Your task to perform on an android device: open app "Pluto TV - Live TV and Movies" (install if not already installed) Image 0: 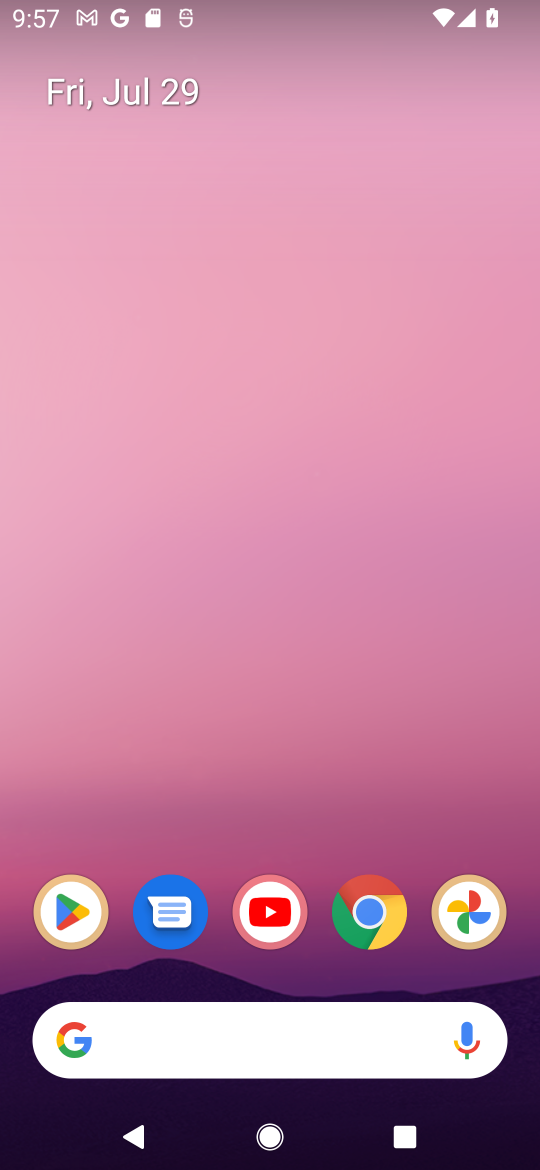
Step 0: click (278, 309)
Your task to perform on an android device: open app "Pluto TV - Live TV and Movies" (install if not already installed) Image 1: 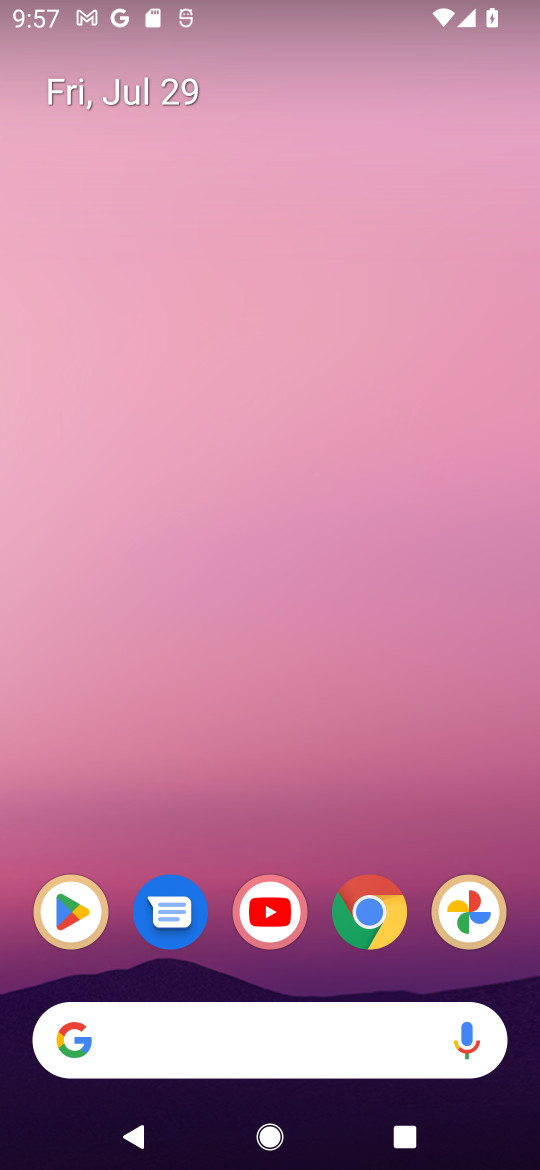
Step 1: drag from (304, 1007) to (373, 64)
Your task to perform on an android device: open app "Pluto TV - Live TV and Movies" (install if not already installed) Image 2: 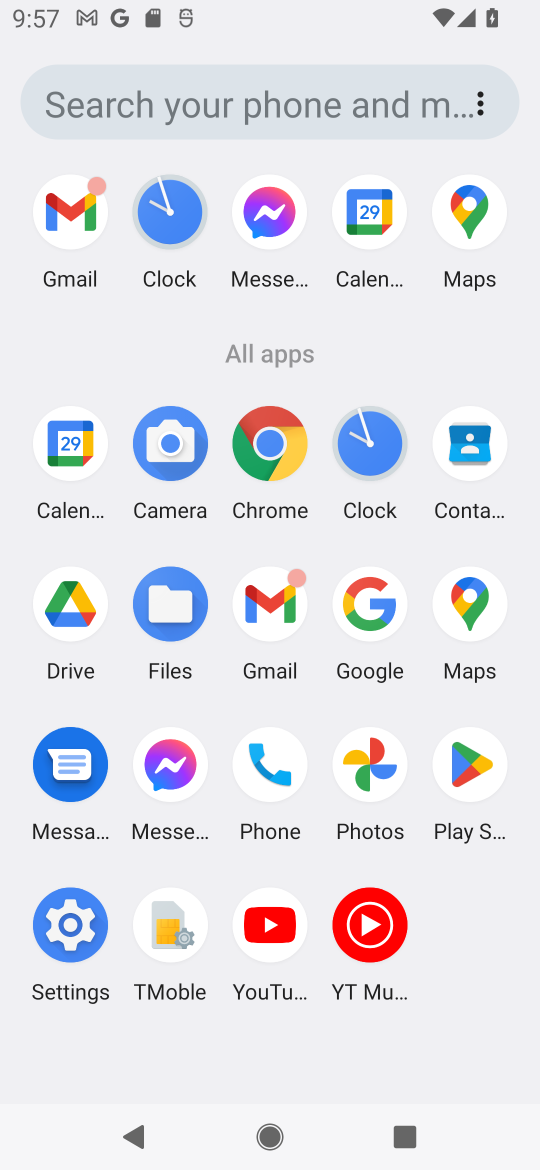
Step 2: click (478, 773)
Your task to perform on an android device: open app "Pluto TV - Live TV and Movies" (install if not already installed) Image 3: 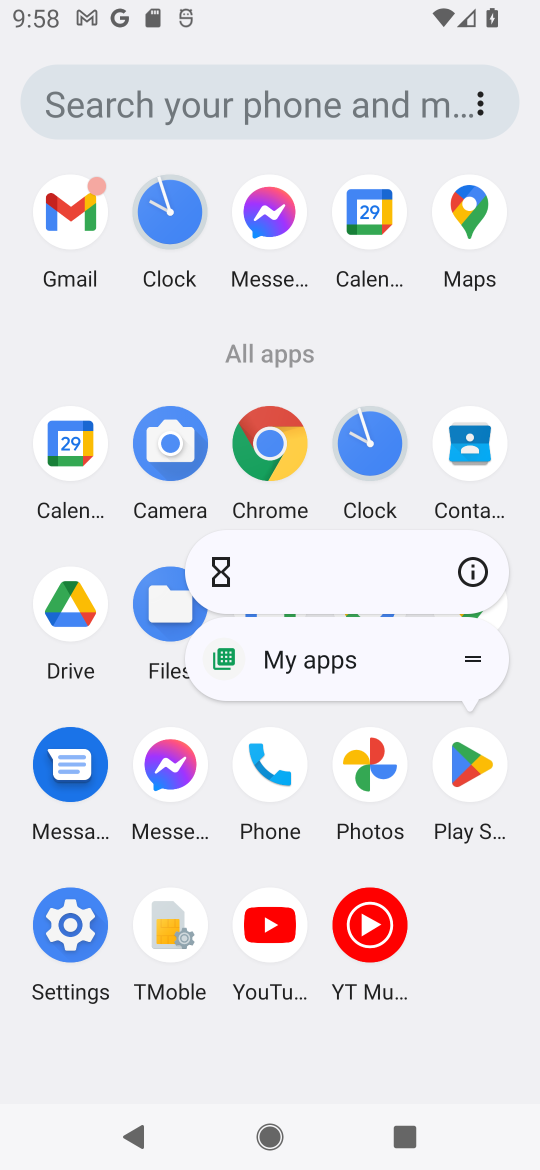
Step 3: click (469, 770)
Your task to perform on an android device: open app "Pluto TV - Live TV and Movies" (install if not already installed) Image 4: 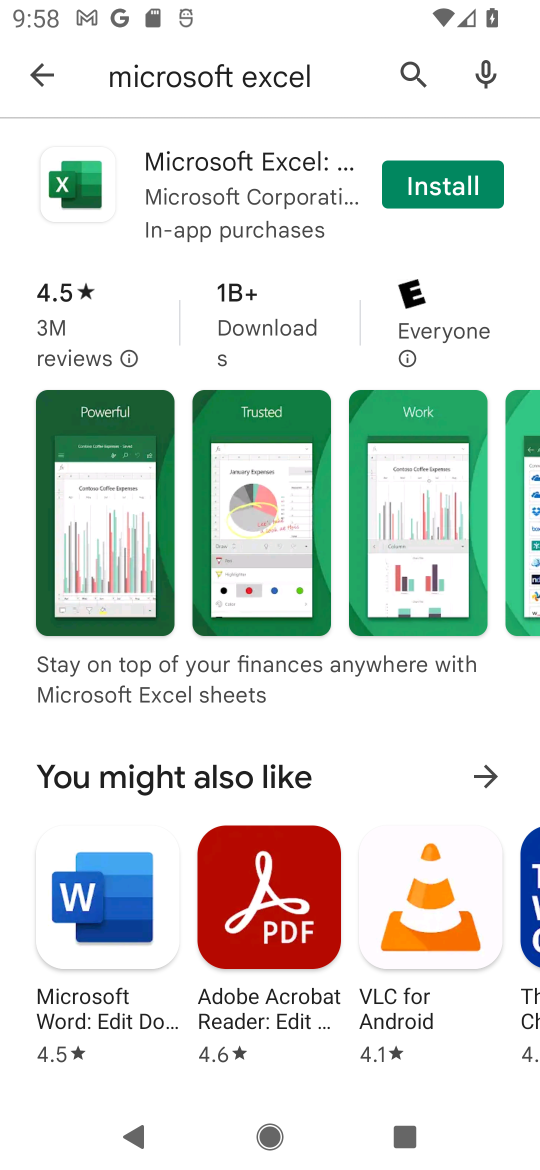
Step 4: click (28, 86)
Your task to perform on an android device: open app "Pluto TV - Live TV and Movies" (install if not already installed) Image 5: 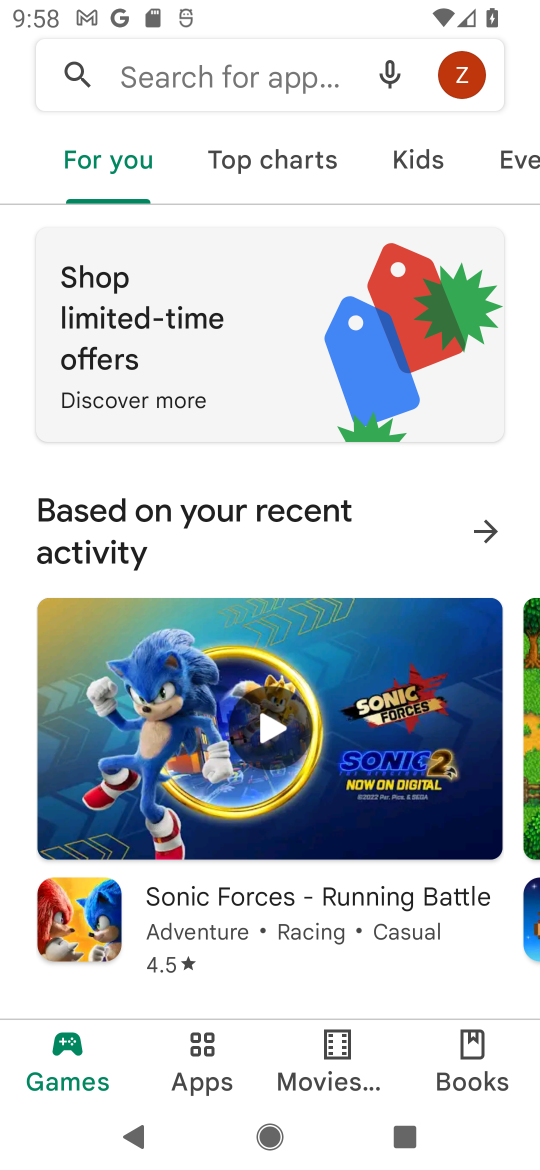
Step 5: click (180, 80)
Your task to perform on an android device: open app "Pluto TV - Live TV and Movies" (install if not already installed) Image 6: 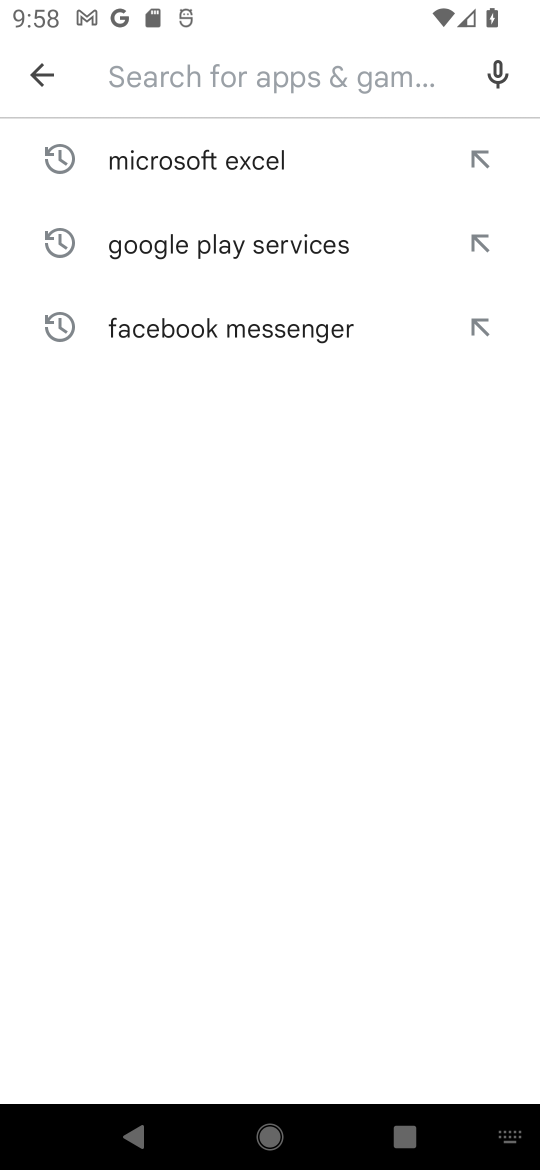
Step 6: type "Pluto TV - Live TV and Movies"
Your task to perform on an android device: open app "Pluto TV - Live TV and Movies" (install if not already installed) Image 7: 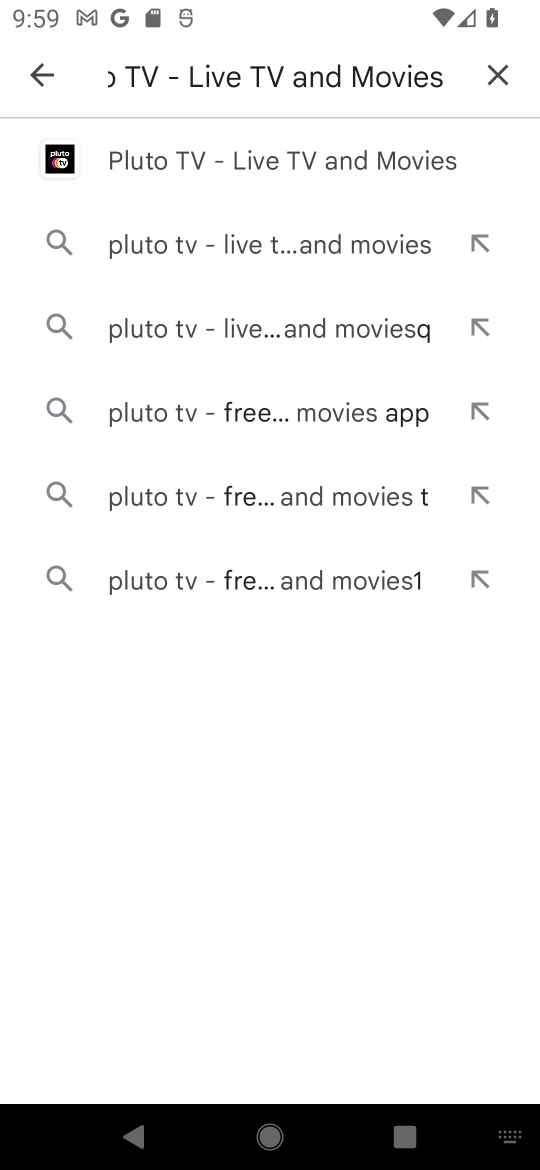
Step 7: click (281, 164)
Your task to perform on an android device: open app "Pluto TV - Live TV and Movies" (install if not already installed) Image 8: 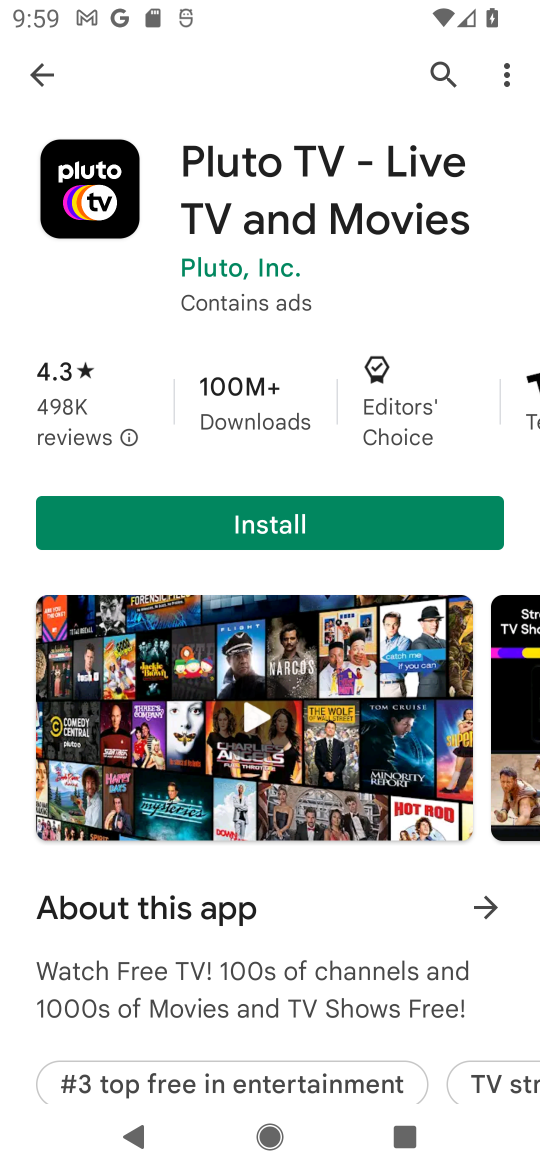
Step 8: click (229, 525)
Your task to perform on an android device: open app "Pluto TV - Live TV and Movies" (install if not already installed) Image 9: 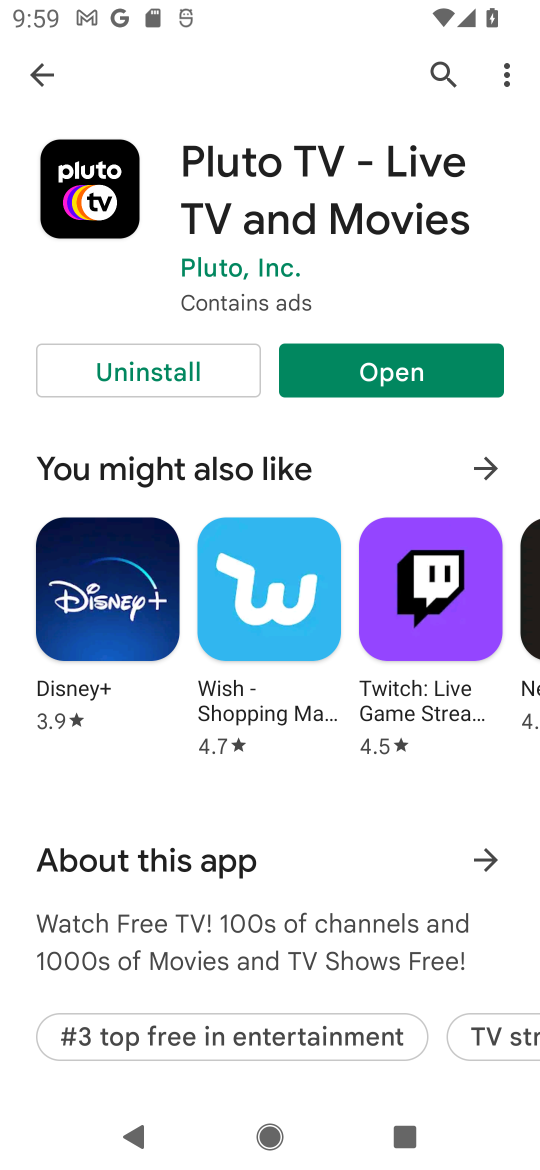
Step 9: click (371, 378)
Your task to perform on an android device: open app "Pluto TV - Live TV and Movies" (install if not already installed) Image 10: 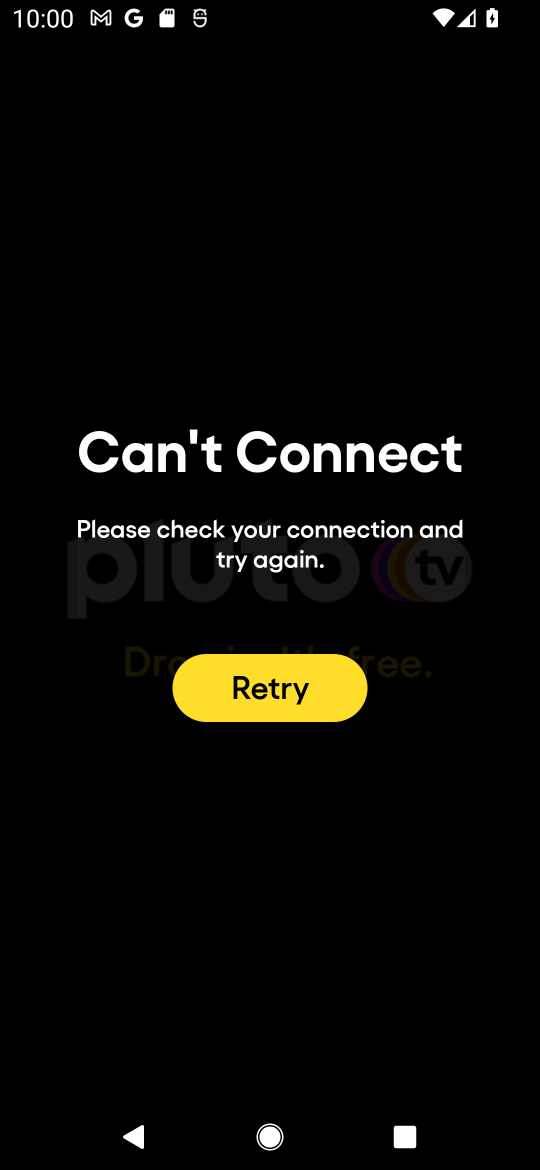
Step 10: press home button
Your task to perform on an android device: open app "Pluto TV - Live TV and Movies" (install if not already installed) Image 11: 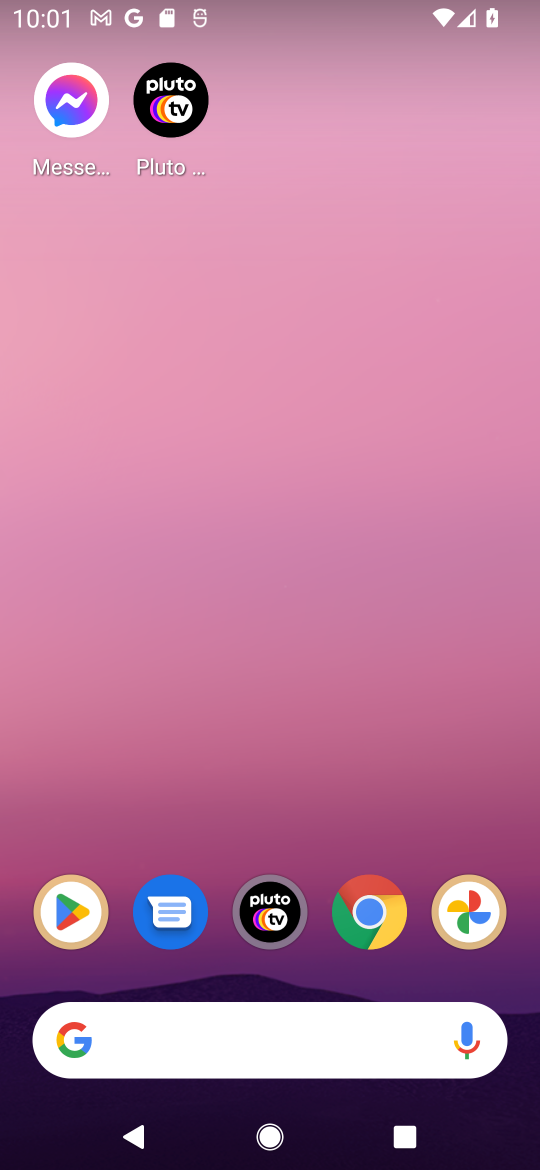
Step 11: drag from (280, 922) to (297, 315)
Your task to perform on an android device: open app "Pluto TV - Live TV and Movies" (install if not already installed) Image 12: 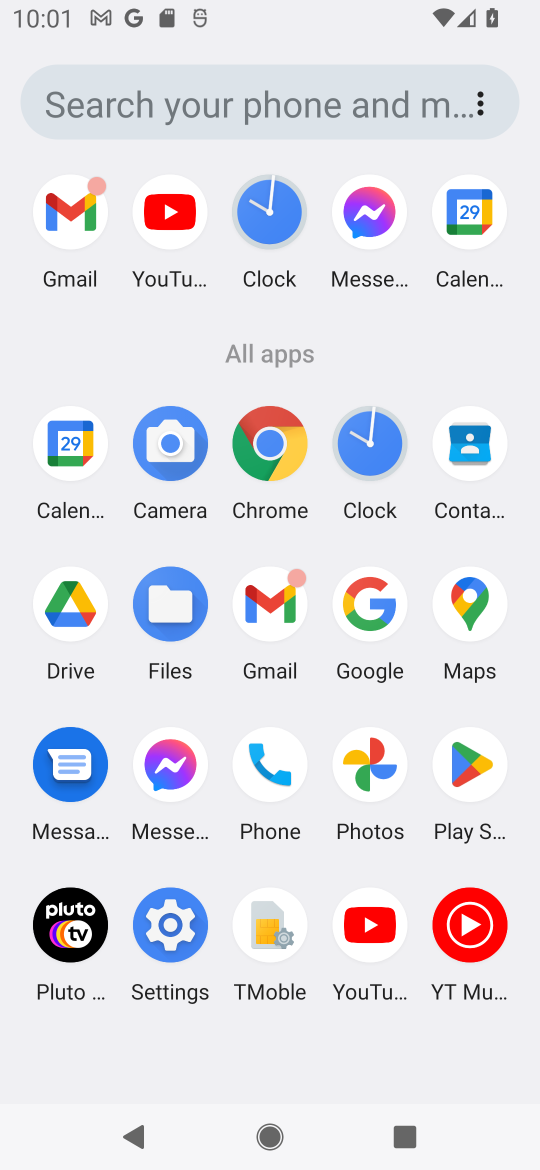
Step 12: click (458, 764)
Your task to perform on an android device: open app "Pluto TV - Live TV and Movies" (install if not already installed) Image 13: 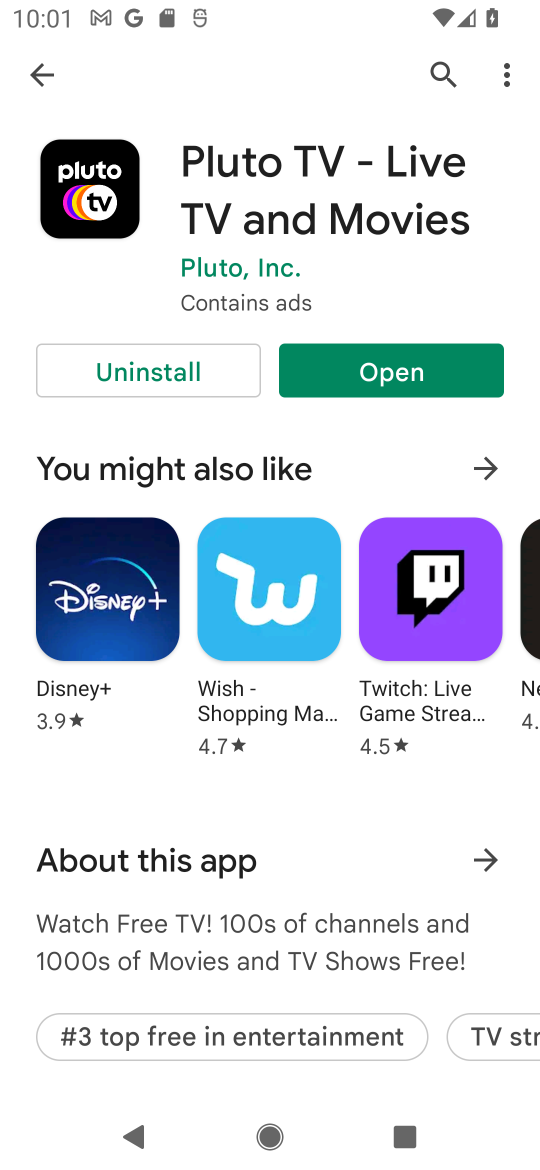
Step 13: click (343, 377)
Your task to perform on an android device: open app "Pluto TV - Live TV and Movies" (install if not already installed) Image 14: 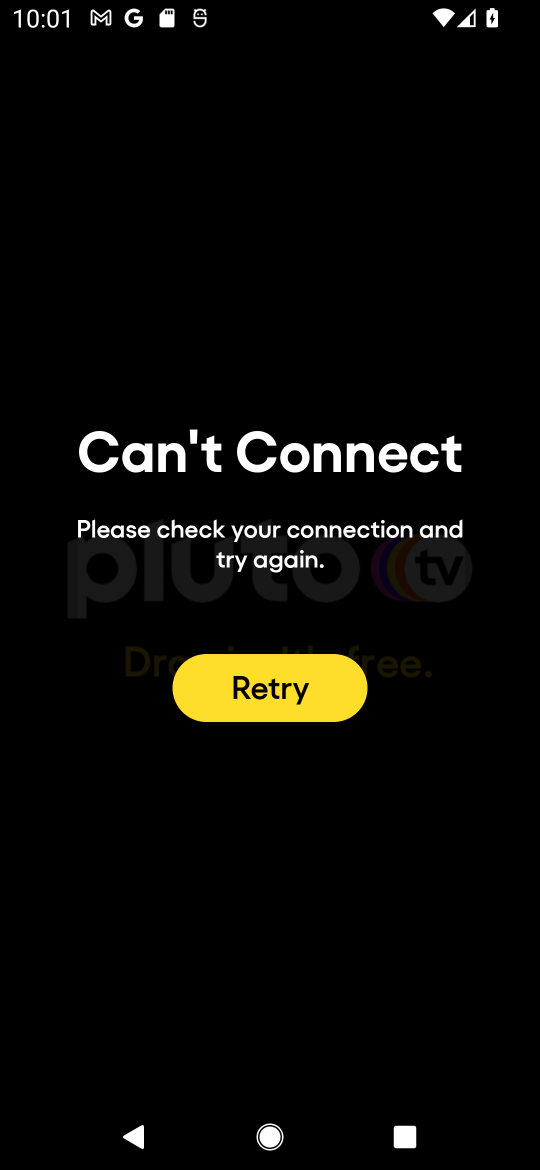
Step 14: task complete